Your task to perform on an android device: Check the weather Image 0: 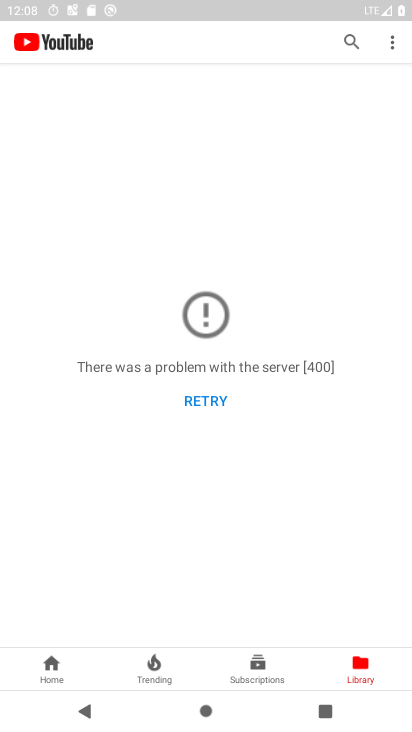
Step 0: press home button
Your task to perform on an android device: Check the weather Image 1: 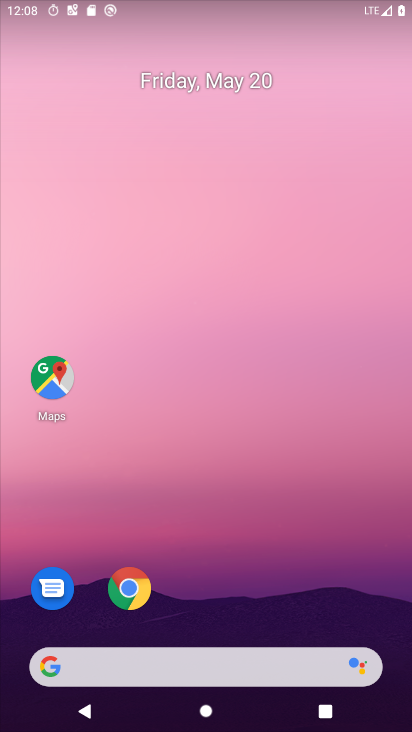
Step 1: click (50, 672)
Your task to perform on an android device: Check the weather Image 2: 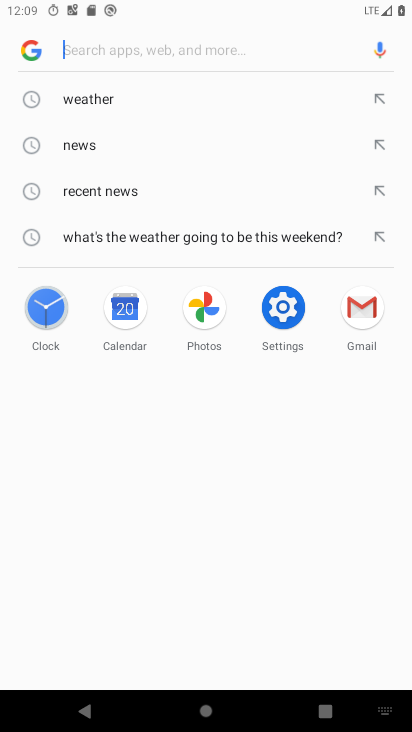
Step 2: click (111, 98)
Your task to perform on an android device: Check the weather Image 3: 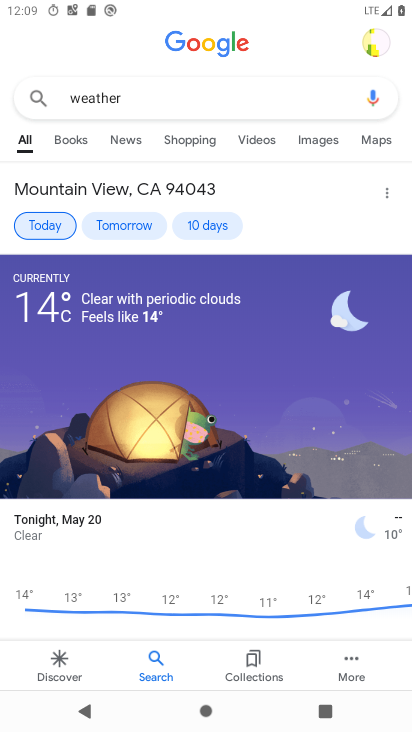
Step 3: task complete